Your task to perform on an android device: Go to eBay Image 0: 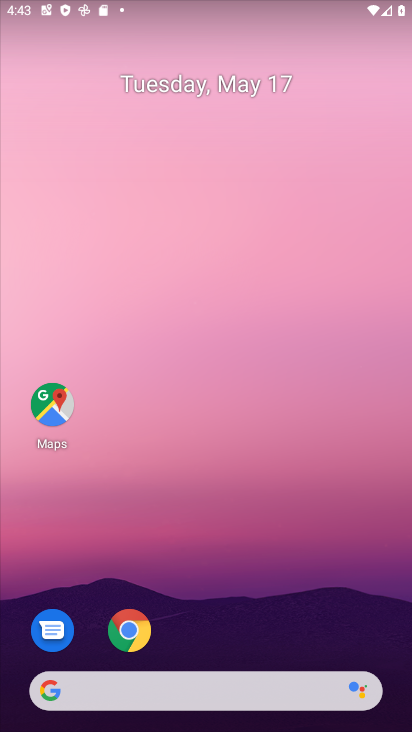
Step 0: click (131, 628)
Your task to perform on an android device: Go to eBay Image 1: 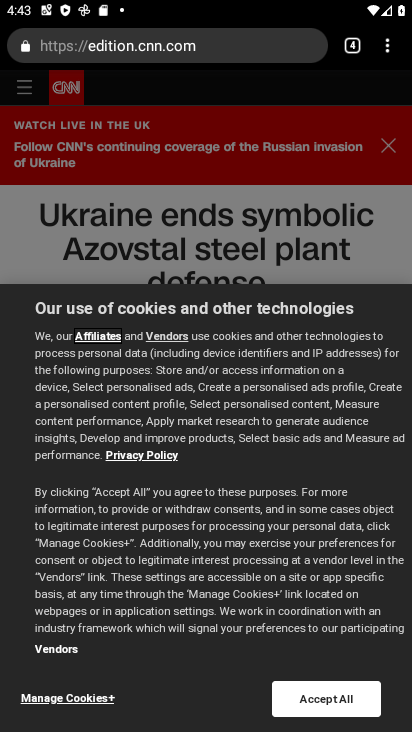
Step 1: click (388, 53)
Your task to perform on an android device: Go to eBay Image 2: 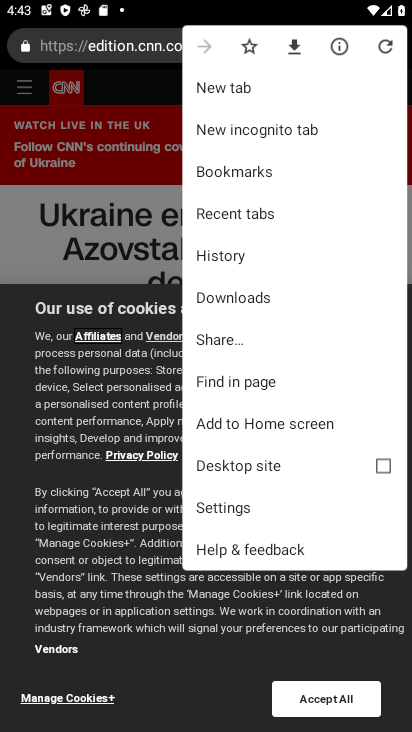
Step 2: click (233, 86)
Your task to perform on an android device: Go to eBay Image 3: 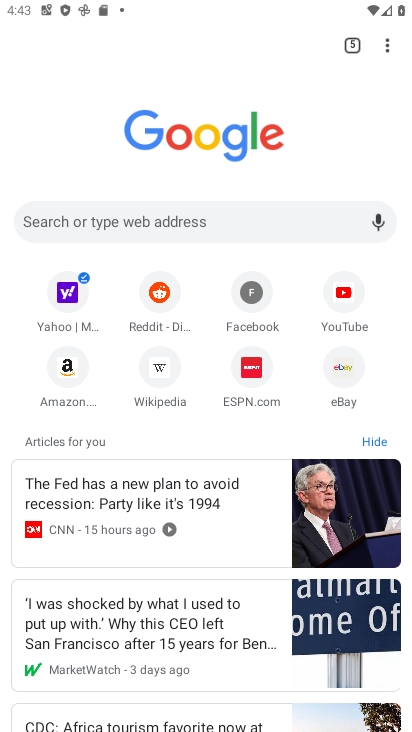
Step 3: click (174, 218)
Your task to perform on an android device: Go to eBay Image 4: 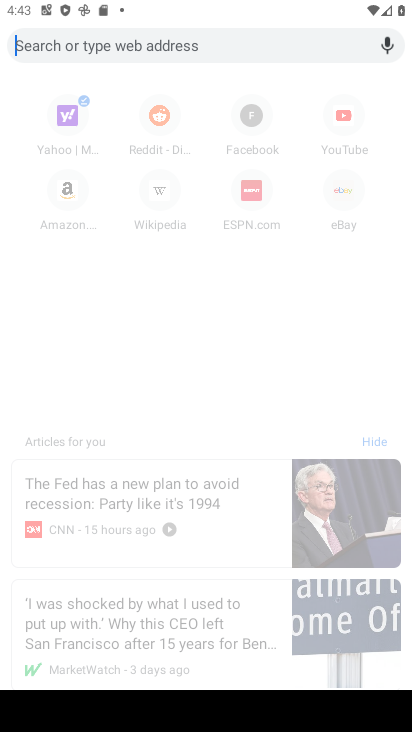
Step 4: type "eBay"
Your task to perform on an android device: Go to eBay Image 5: 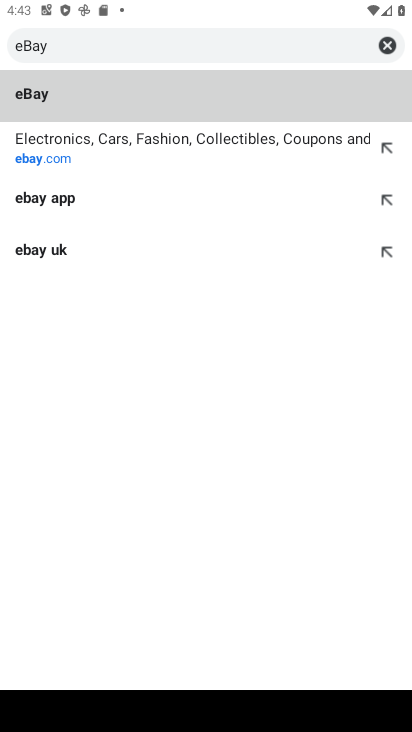
Step 5: click (37, 95)
Your task to perform on an android device: Go to eBay Image 6: 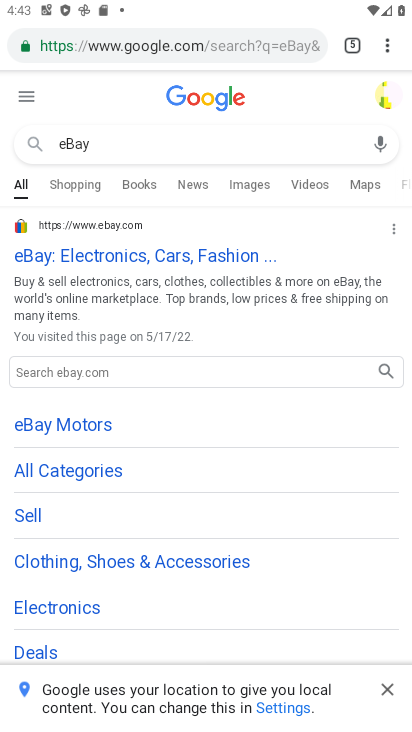
Step 6: click (88, 254)
Your task to perform on an android device: Go to eBay Image 7: 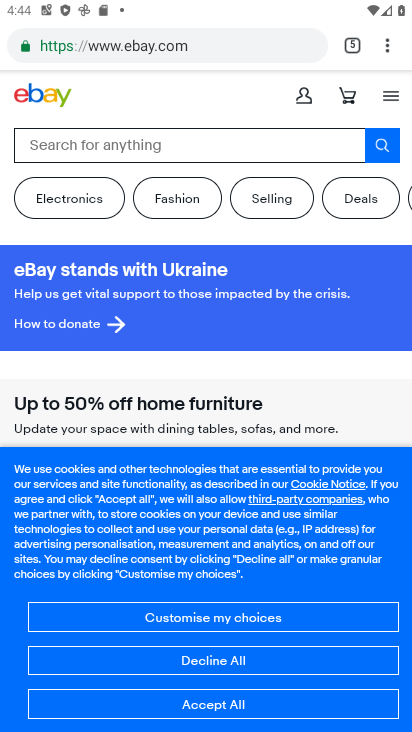
Step 7: task complete